Your task to perform on an android device: What's the weather going to be this weekend? Image 0: 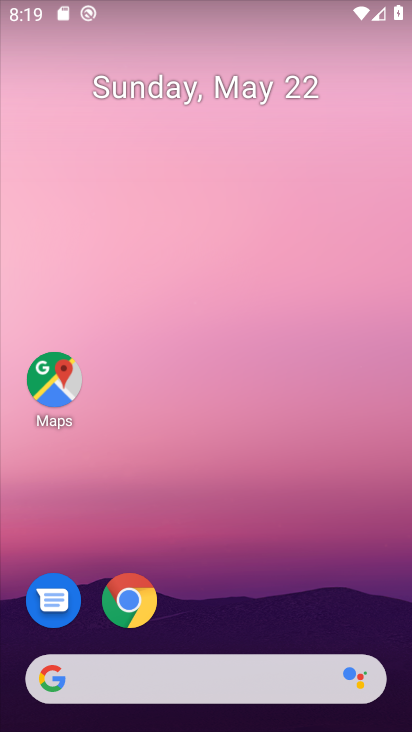
Step 0: drag from (291, 311) to (297, 258)
Your task to perform on an android device: What's the weather going to be this weekend? Image 1: 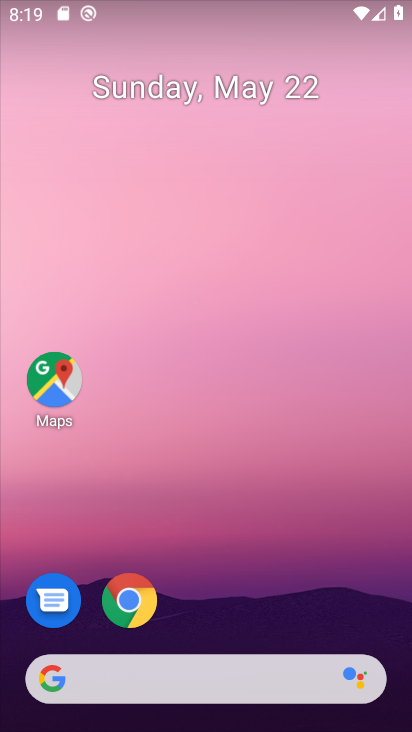
Step 1: drag from (198, 652) to (236, 196)
Your task to perform on an android device: What's the weather going to be this weekend? Image 2: 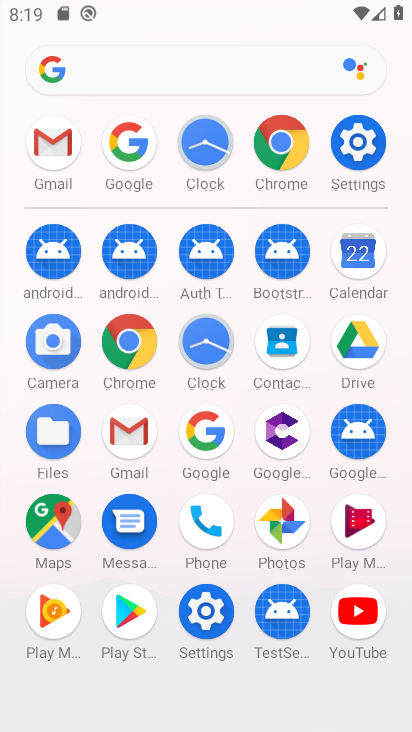
Step 2: click (129, 147)
Your task to perform on an android device: What's the weather going to be this weekend? Image 3: 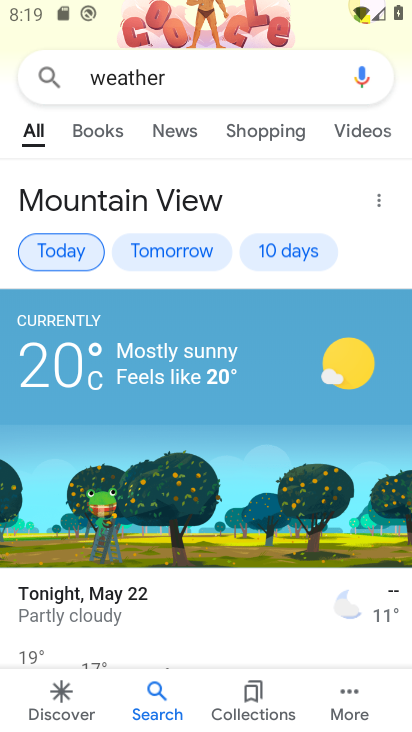
Step 3: click (302, 255)
Your task to perform on an android device: What's the weather going to be this weekend? Image 4: 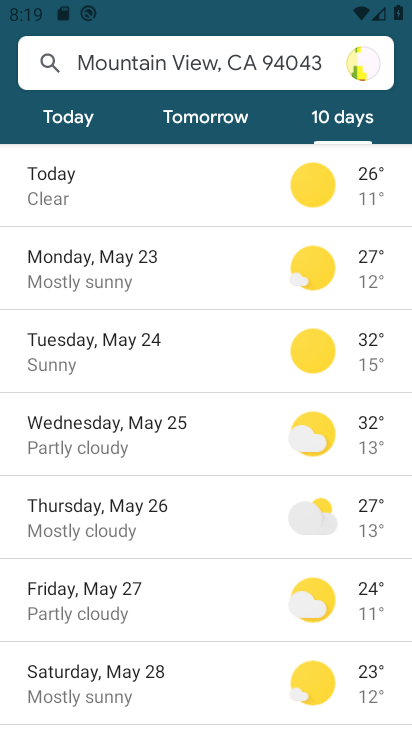
Step 4: task complete